Your task to perform on an android device: turn on airplane mode Image 0: 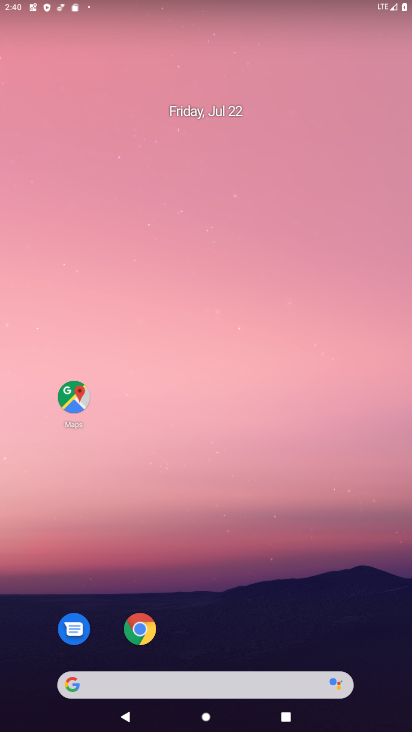
Step 0: drag from (192, 672) to (115, 8)
Your task to perform on an android device: turn on airplane mode Image 1: 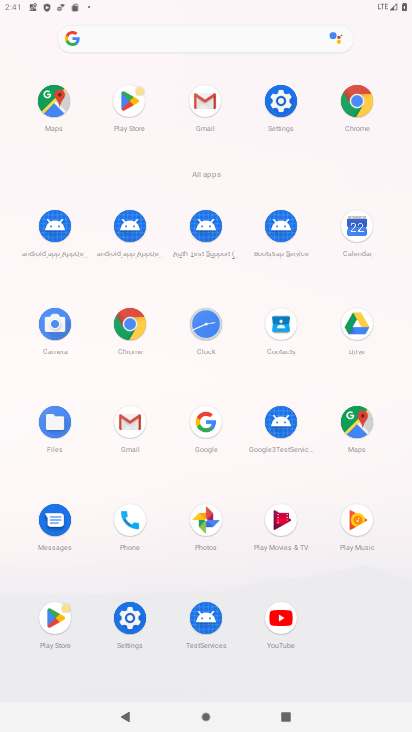
Step 1: click (280, 101)
Your task to perform on an android device: turn on airplane mode Image 2: 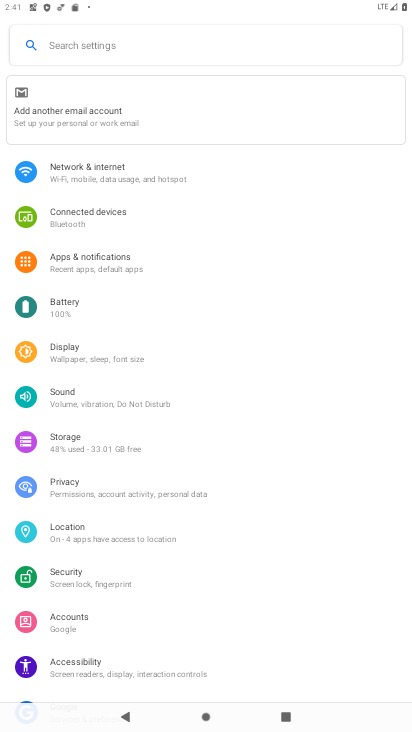
Step 2: click (109, 176)
Your task to perform on an android device: turn on airplane mode Image 3: 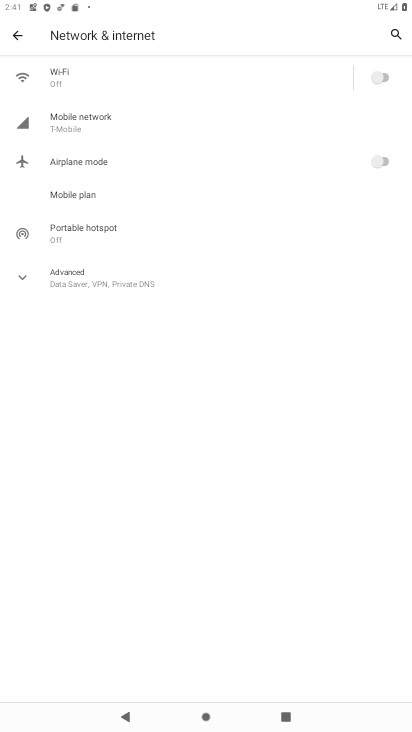
Step 3: click (390, 163)
Your task to perform on an android device: turn on airplane mode Image 4: 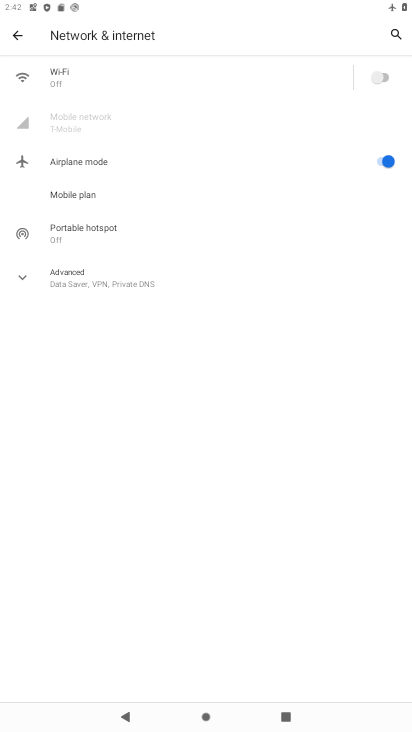
Step 4: task complete